Your task to perform on an android device: Open wifi settings Image 0: 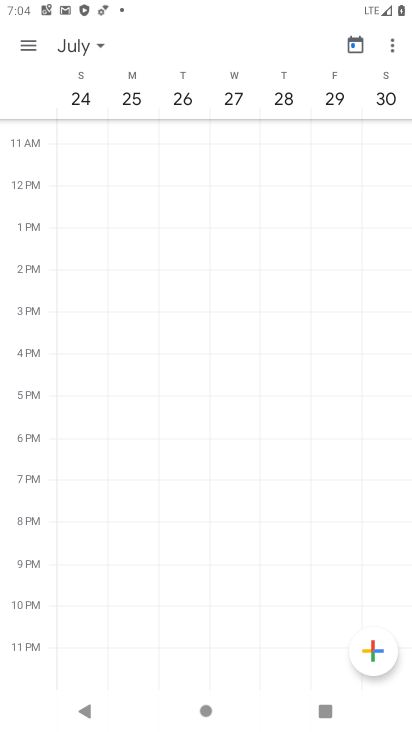
Step 0: press home button
Your task to perform on an android device: Open wifi settings Image 1: 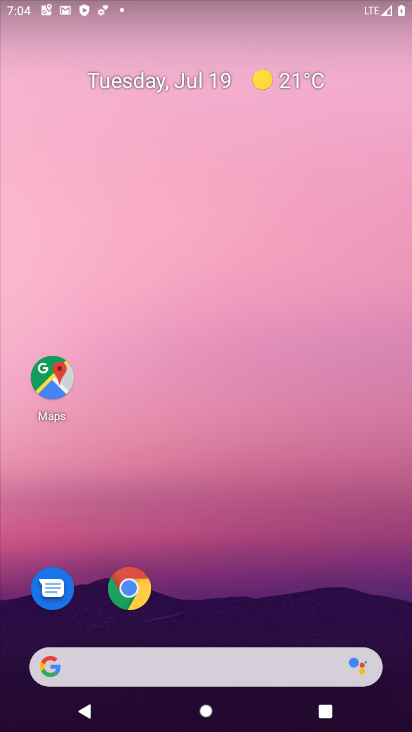
Step 1: drag from (344, 51) to (289, 648)
Your task to perform on an android device: Open wifi settings Image 2: 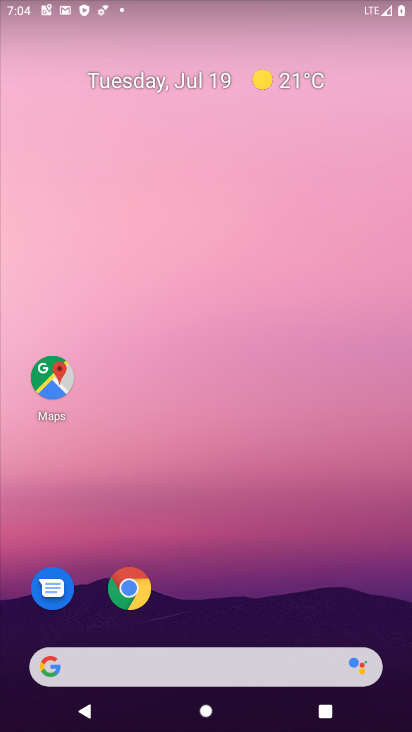
Step 2: drag from (287, 589) to (230, 72)
Your task to perform on an android device: Open wifi settings Image 3: 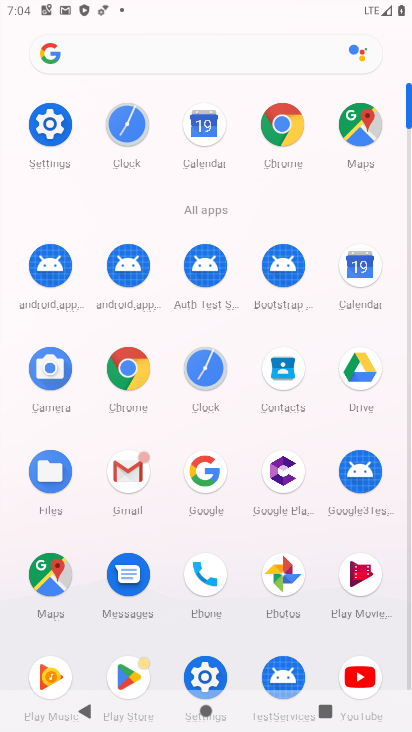
Step 3: click (205, 665)
Your task to perform on an android device: Open wifi settings Image 4: 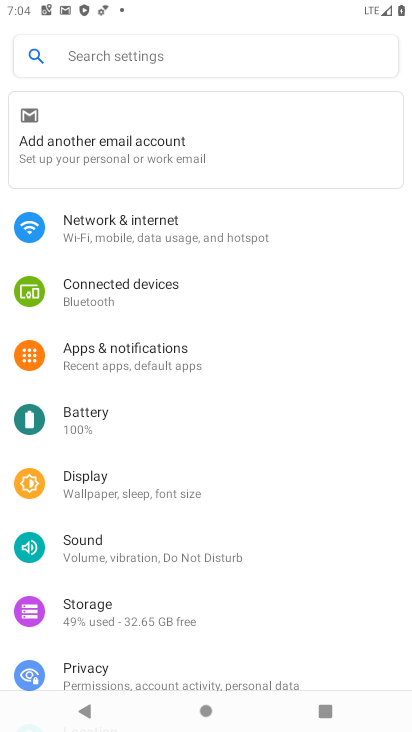
Step 4: click (140, 228)
Your task to perform on an android device: Open wifi settings Image 5: 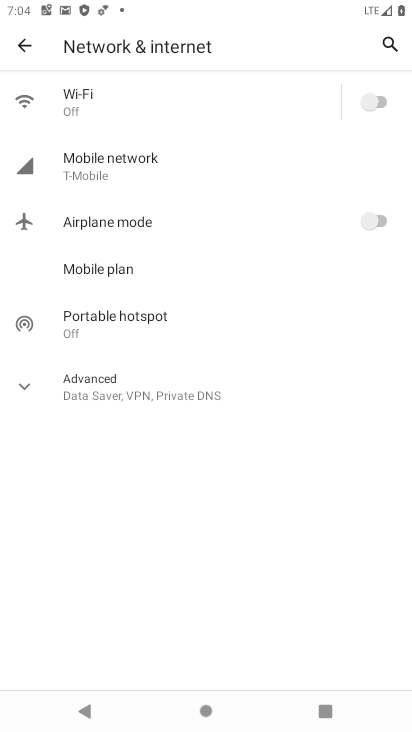
Step 5: click (104, 108)
Your task to perform on an android device: Open wifi settings Image 6: 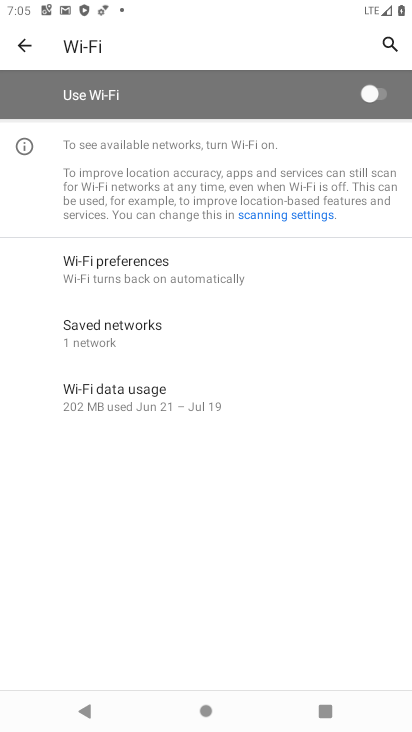
Step 6: task complete